Your task to perform on an android device: set the timer Image 0: 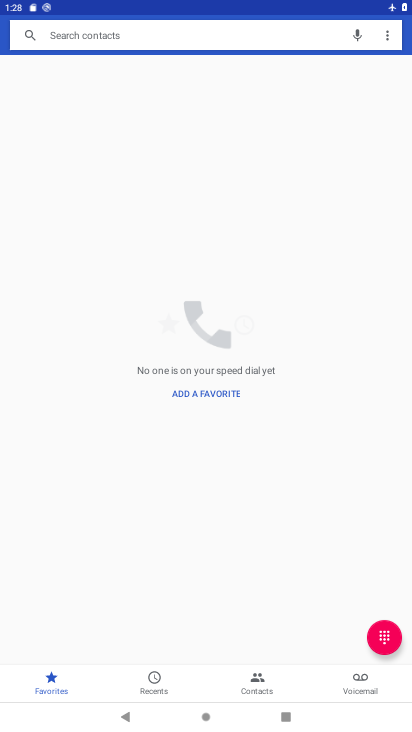
Step 0: drag from (243, 615) to (244, 271)
Your task to perform on an android device: set the timer Image 1: 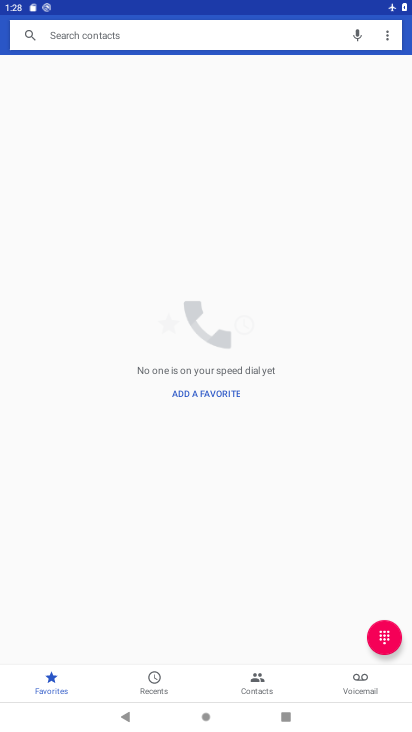
Step 1: press home button
Your task to perform on an android device: set the timer Image 2: 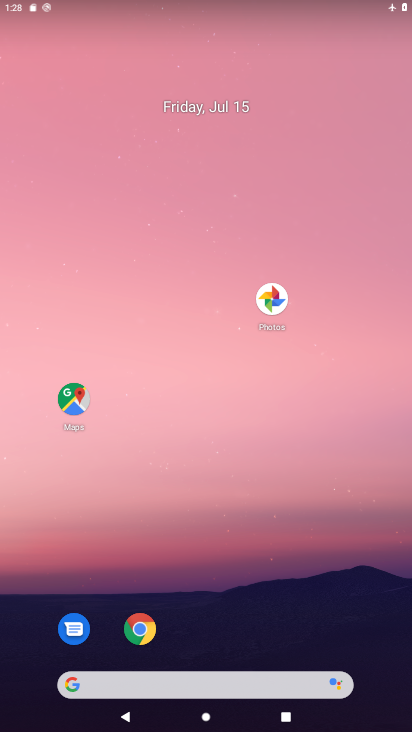
Step 2: drag from (177, 623) to (187, 321)
Your task to perform on an android device: set the timer Image 3: 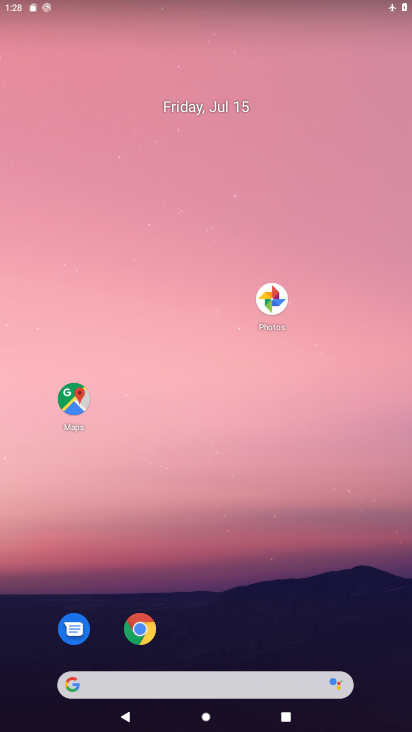
Step 3: drag from (225, 648) to (268, 169)
Your task to perform on an android device: set the timer Image 4: 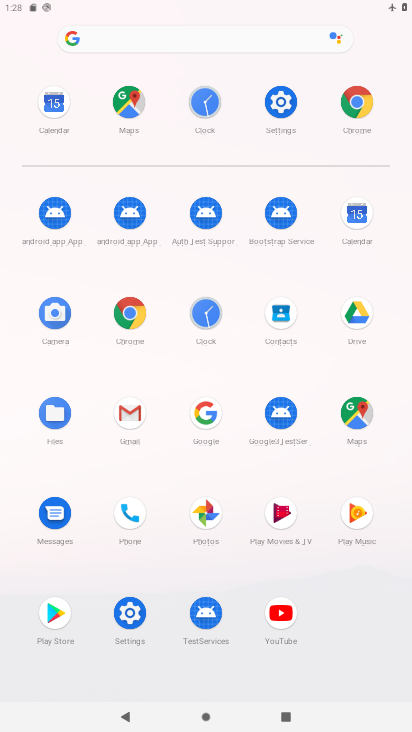
Step 4: click (364, 203)
Your task to perform on an android device: set the timer Image 5: 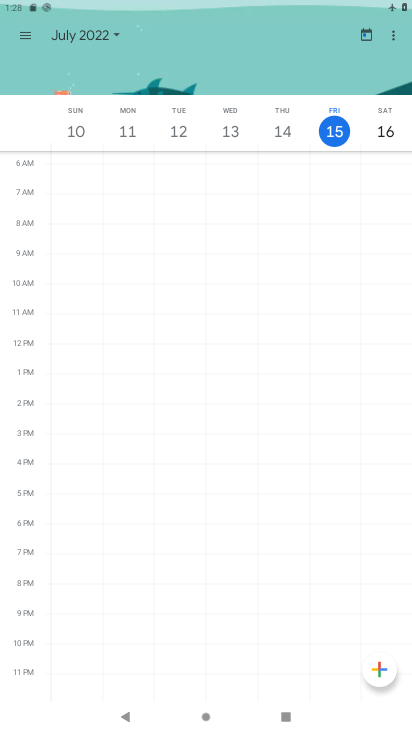
Step 5: press home button
Your task to perform on an android device: set the timer Image 6: 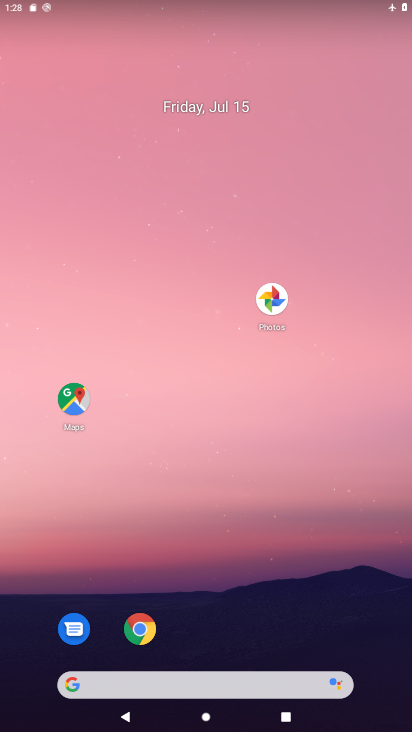
Step 6: drag from (195, 625) to (211, 256)
Your task to perform on an android device: set the timer Image 7: 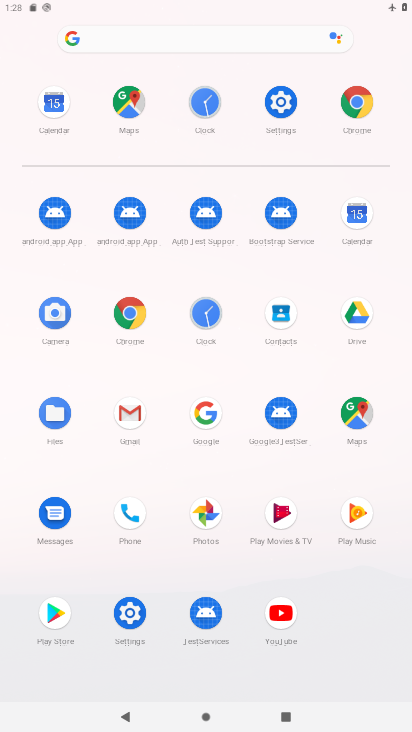
Step 7: click (201, 304)
Your task to perform on an android device: set the timer Image 8: 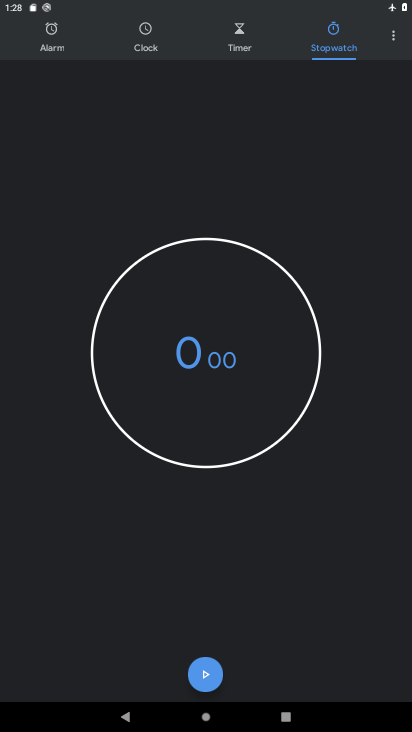
Step 8: click (251, 44)
Your task to perform on an android device: set the timer Image 9: 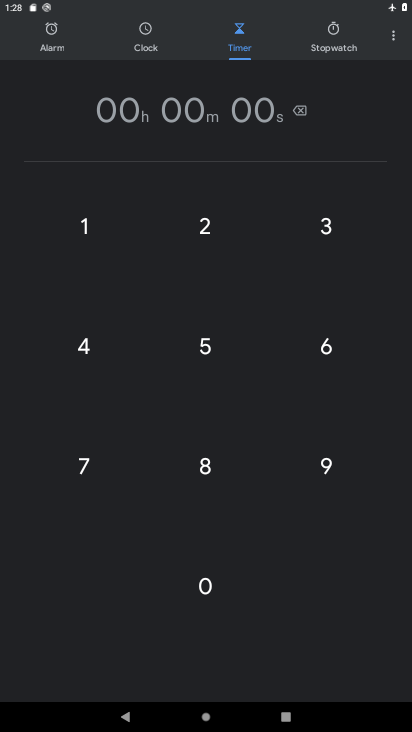
Step 9: click (138, 103)
Your task to perform on an android device: set the timer Image 10: 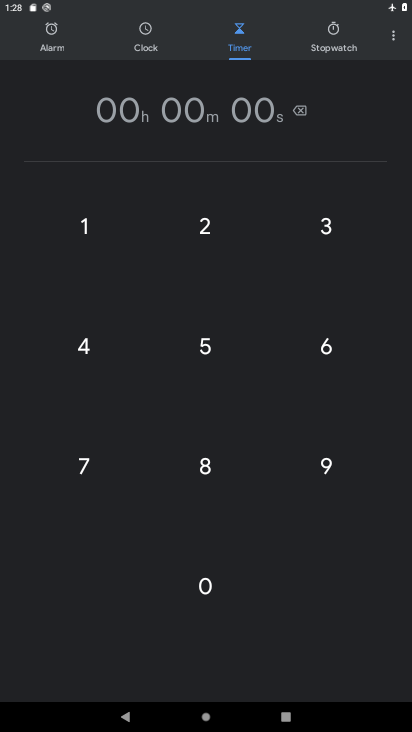
Step 10: type "919119919 "
Your task to perform on an android device: set the timer Image 11: 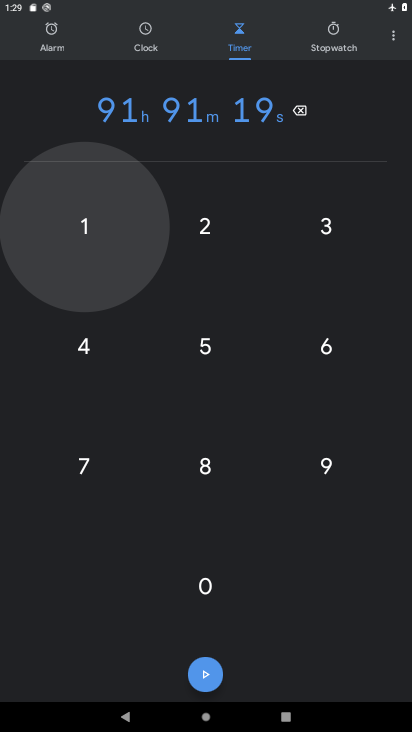
Step 11: task complete